Your task to perform on an android device: Open Yahoo.com Image 0: 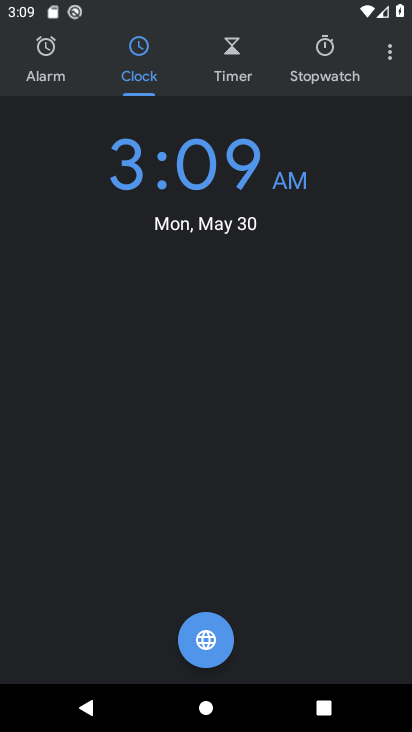
Step 0: press home button
Your task to perform on an android device: Open Yahoo.com Image 1: 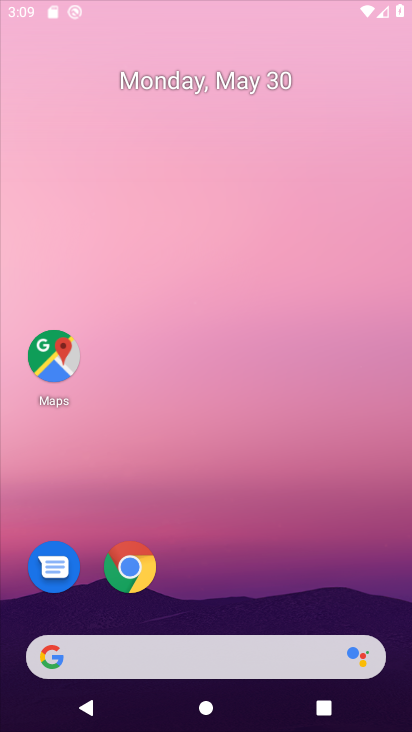
Step 1: drag from (256, 568) to (241, 129)
Your task to perform on an android device: Open Yahoo.com Image 2: 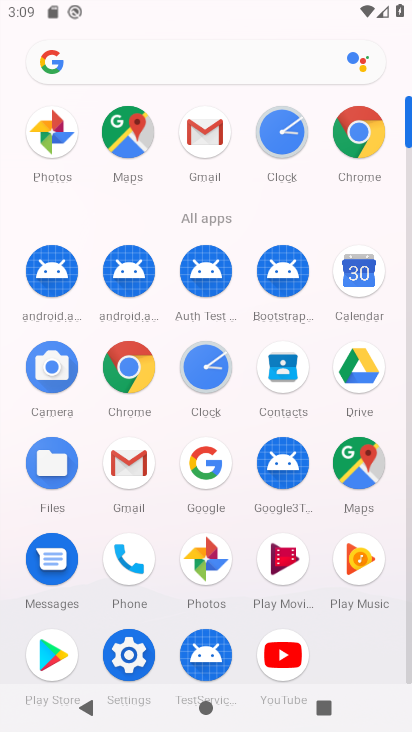
Step 2: click (132, 366)
Your task to perform on an android device: Open Yahoo.com Image 3: 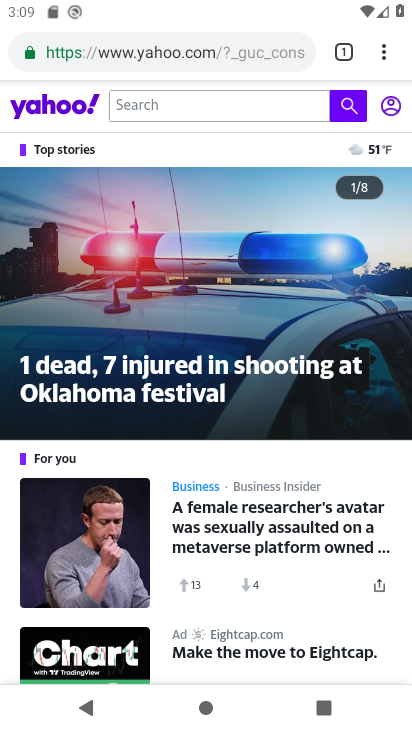
Step 3: task complete